Your task to perform on an android device: see creations saved in the google photos Image 0: 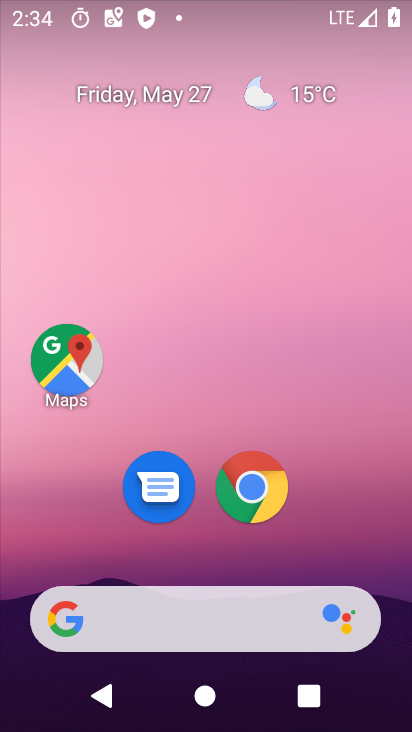
Step 0: click (363, 125)
Your task to perform on an android device: see creations saved in the google photos Image 1: 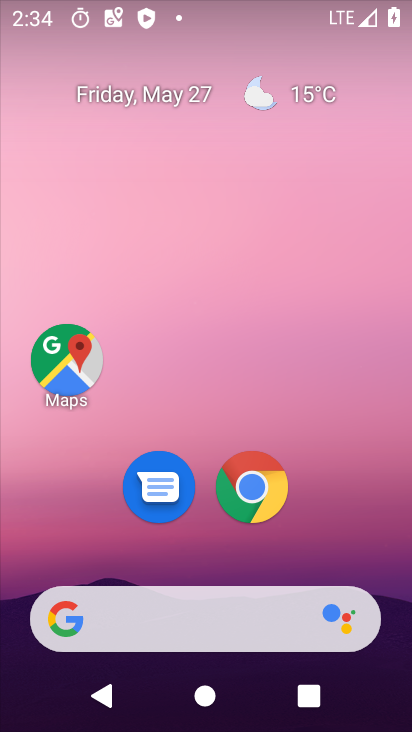
Step 1: drag from (334, 466) to (363, 102)
Your task to perform on an android device: see creations saved in the google photos Image 2: 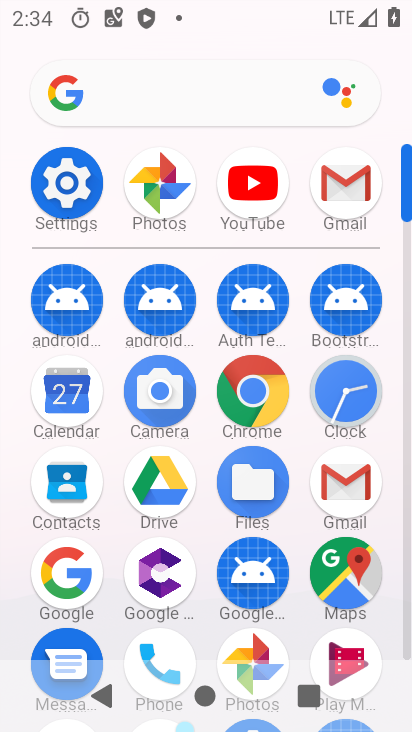
Step 2: click (259, 645)
Your task to perform on an android device: see creations saved in the google photos Image 3: 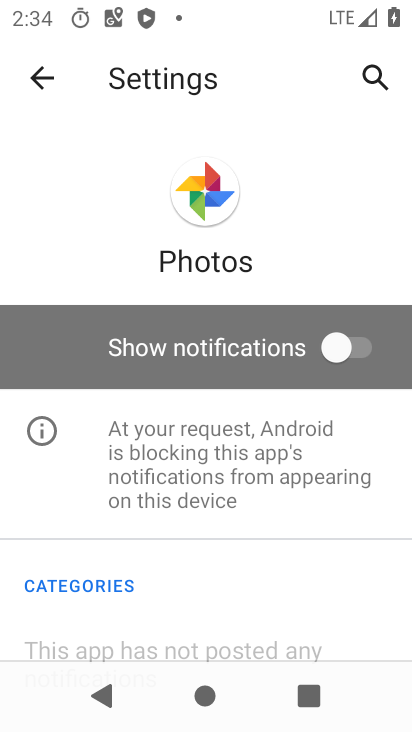
Step 3: click (51, 79)
Your task to perform on an android device: see creations saved in the google photos Image 4: 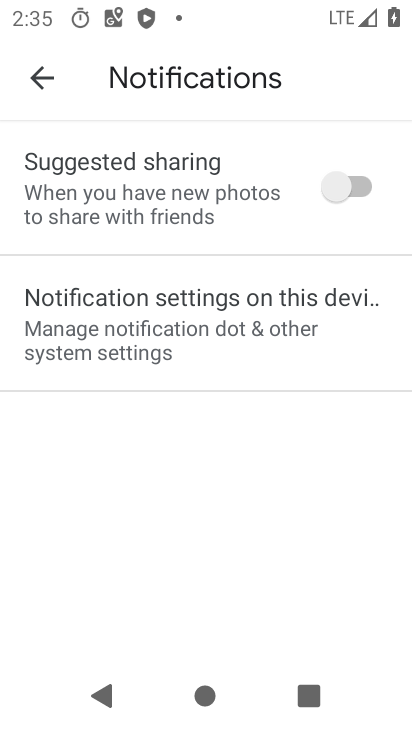
Step 4: click (53, 64)
Your task to perform on an android device: see creations saved in the google photos Image 5: 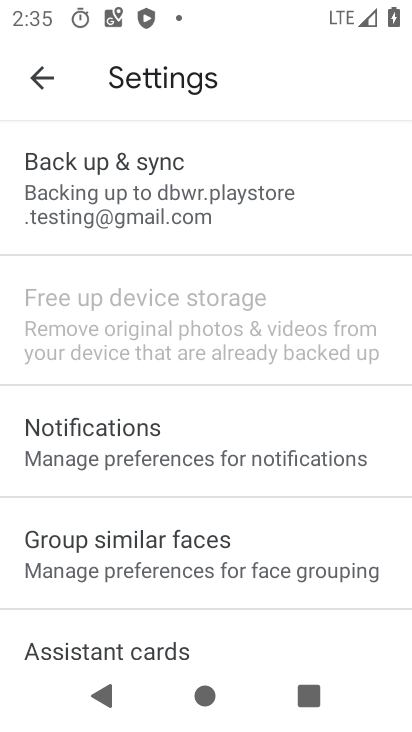
Step 5: click (35, 66)
Your task to perform on an android device: see creations saved in the google photos Image 6: 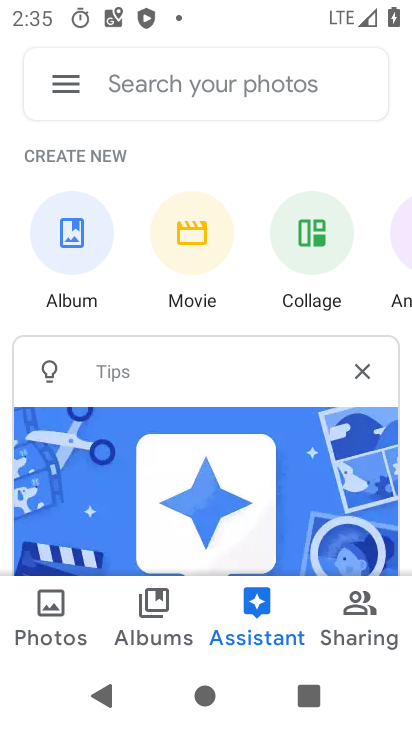
Step 6: task complete